Your task to perform on an android device: Open CNN.com Image 0: 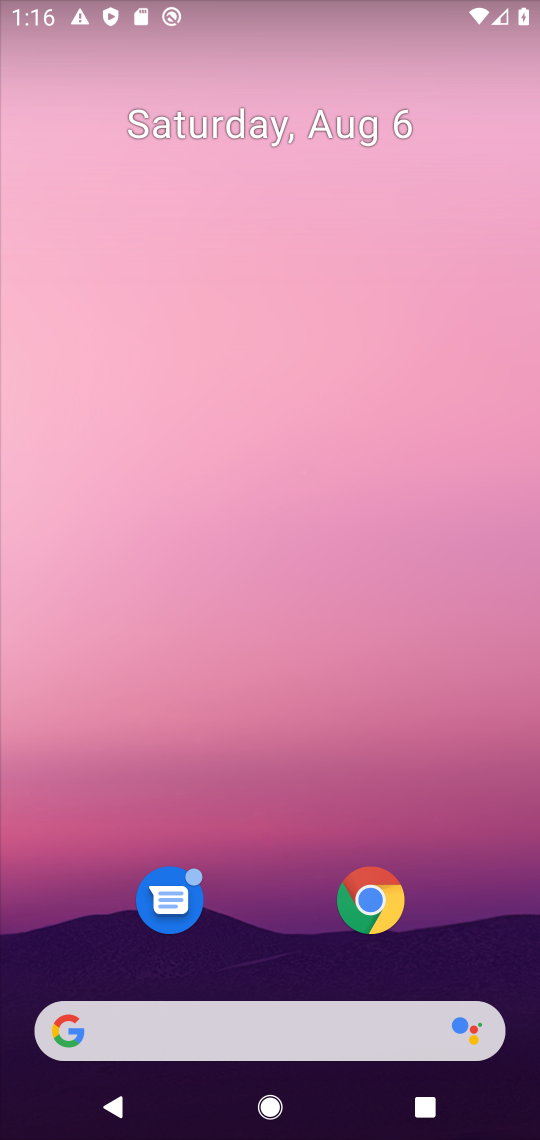
Step 0: press home button
Your task to perform on an android device: Open CNN.com Image 1: 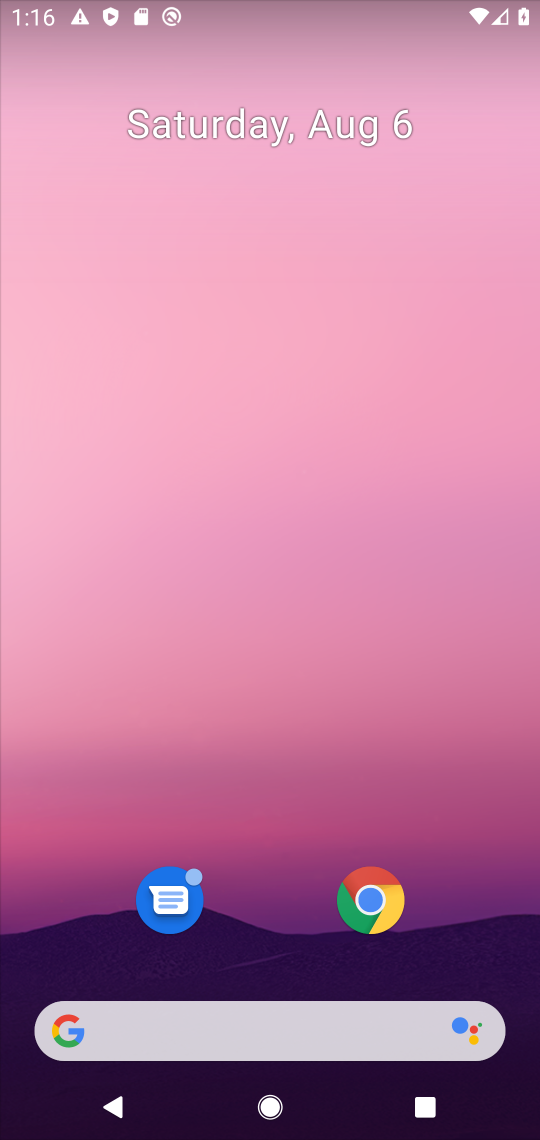
Step 1: click (70, 1031)
Your task to perform on an android device: Open CNN.com Image 2: 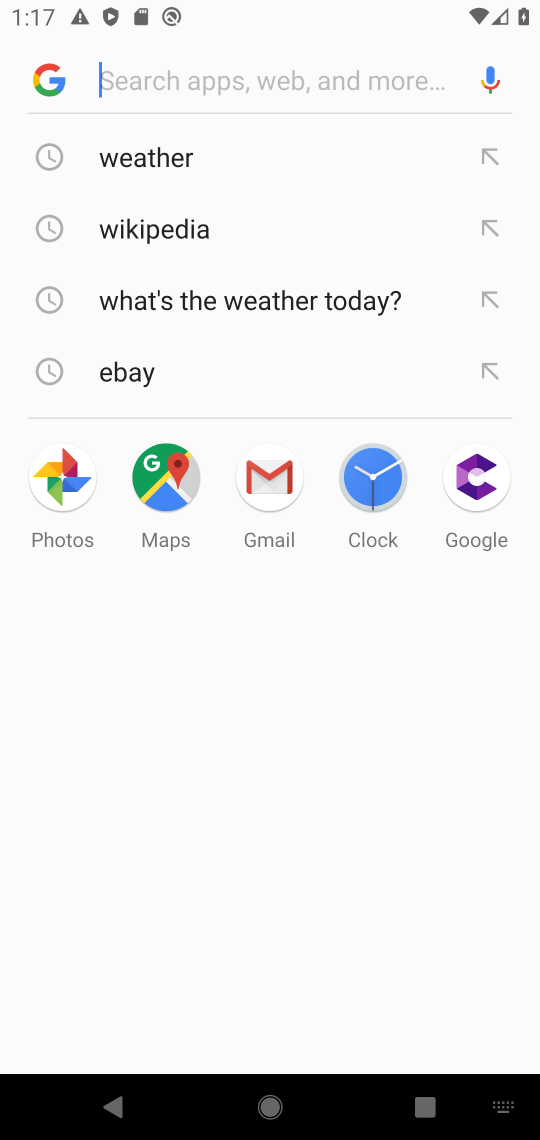
Step 2: type " CNN.com"
Your task to perform on an android device: Open CNN.com Image 3: 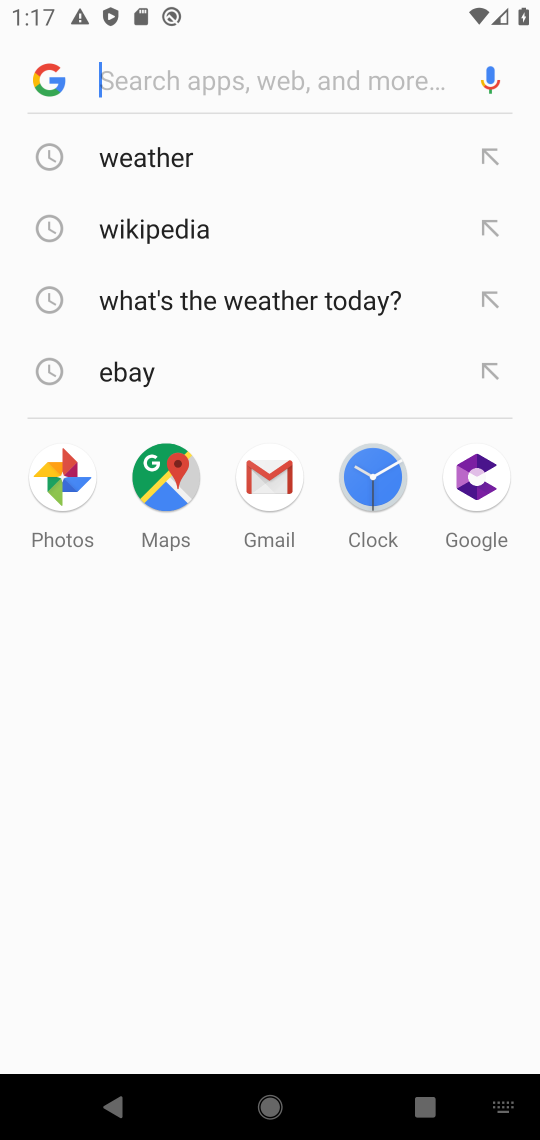
Step 3: click (166, 82)
Your task to perform on an android device: Open CNN.com Image 4: 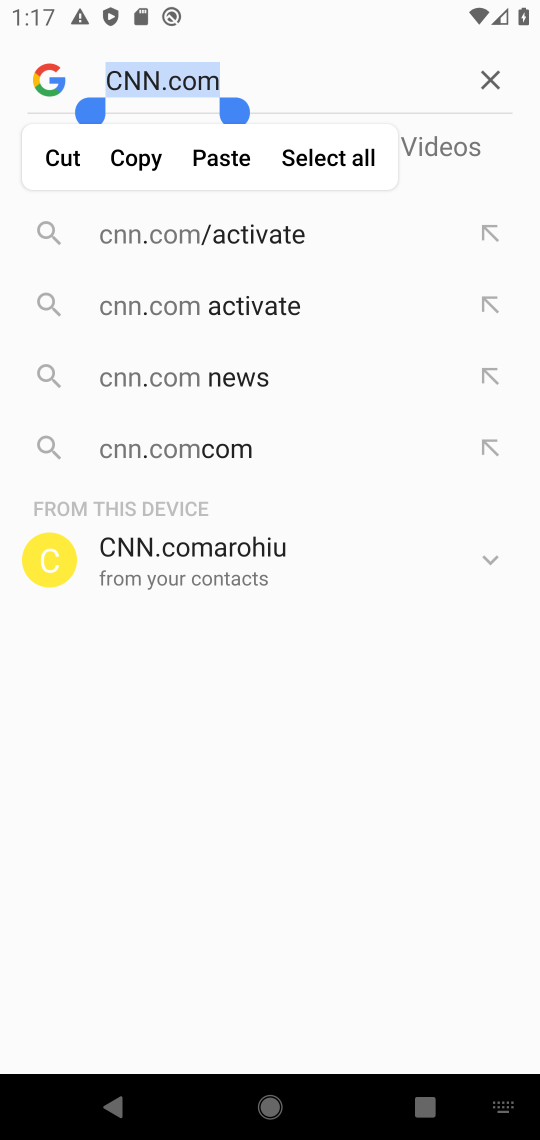
Step 4: press enter
Your task to perform on an android device: Open CNN.com Image 5: 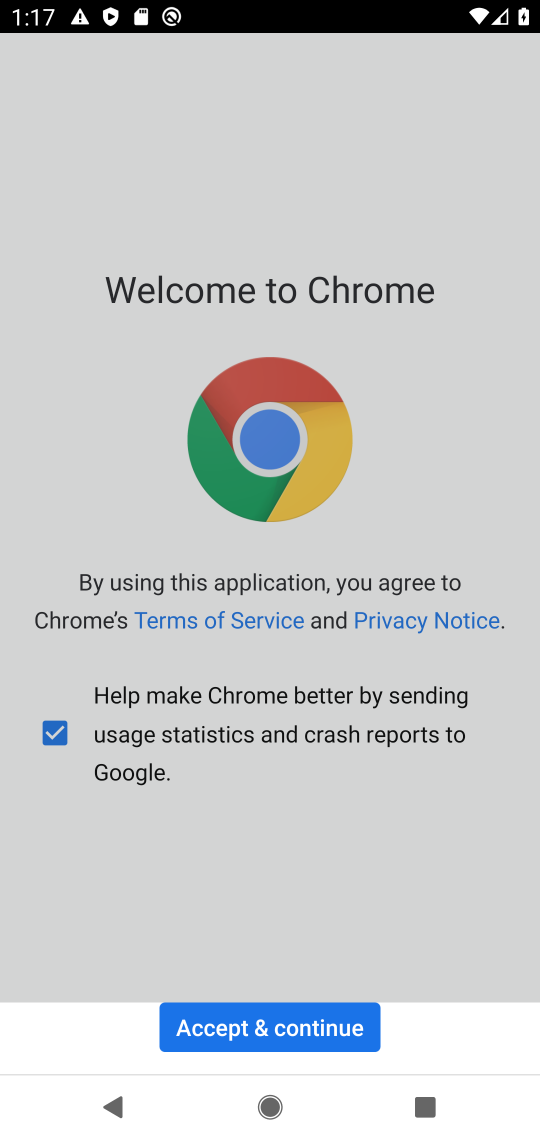
Step 5: click (327, 1035)
Your task to perform on an android device: Open CNN.com Image 6: 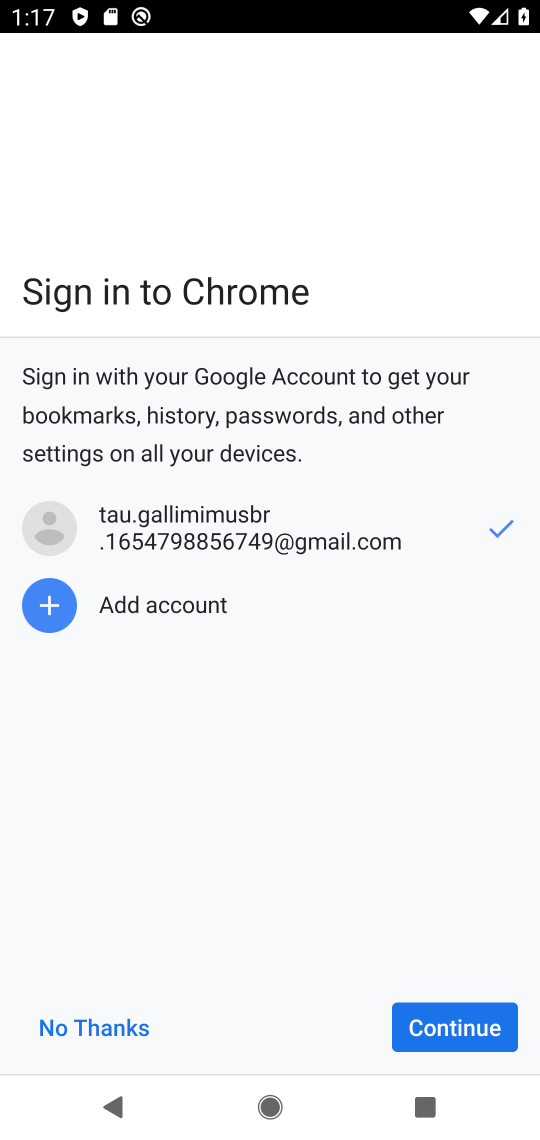
Step 6: click (451, 1024)
Your task to perform on an android device: Open CNN.com Image 7: 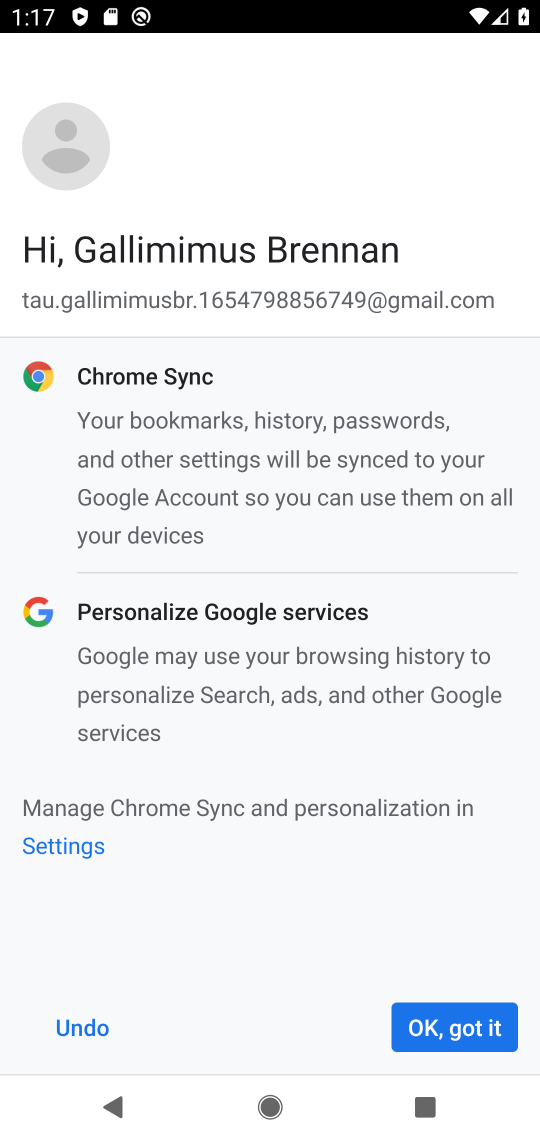
Step 7: click (451, 1024)
Your task to perform on an android device: Open CNN.com Image 8: 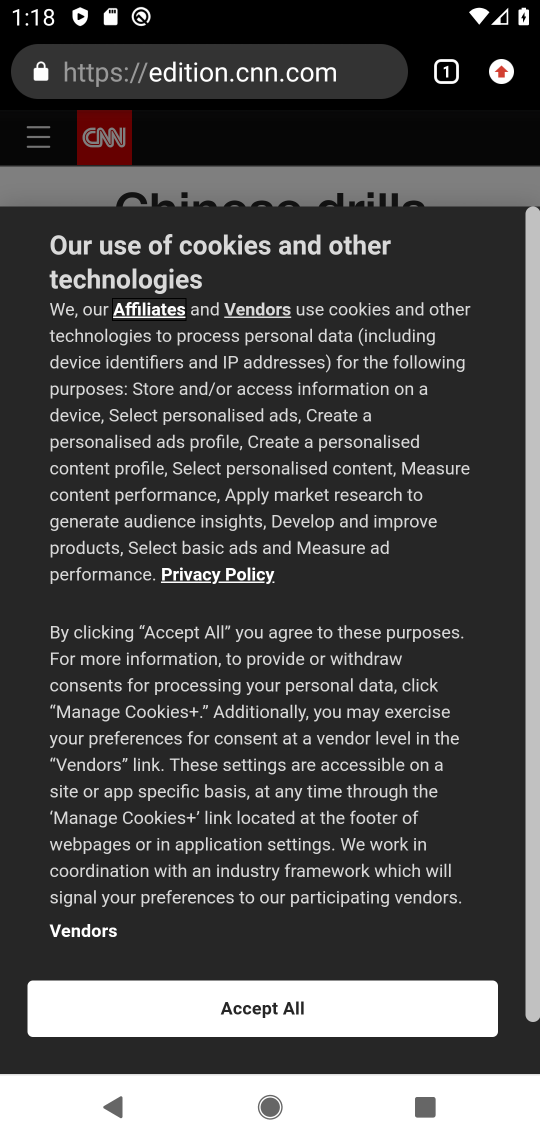
Step 8: task complete